Your task to perform on an android device: Open Google Chrome and open the bookmarks view Image 0: 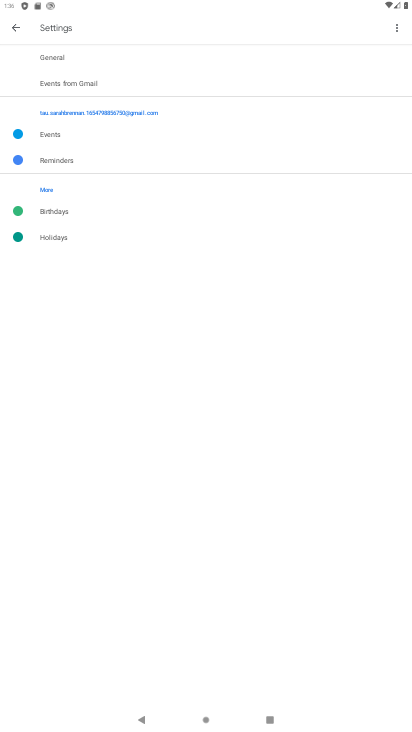
Step 0: press home button
Your task to perform on an android device: Open Google Chrome and open the bookmarks view Image 1: 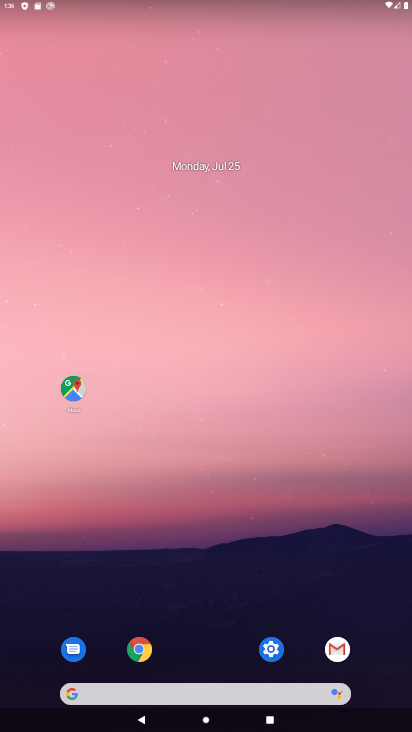
Step 1: click (137, 652)
Your task to perform on an android device: Open Google Chrome and open the bookmarks view Image 2: 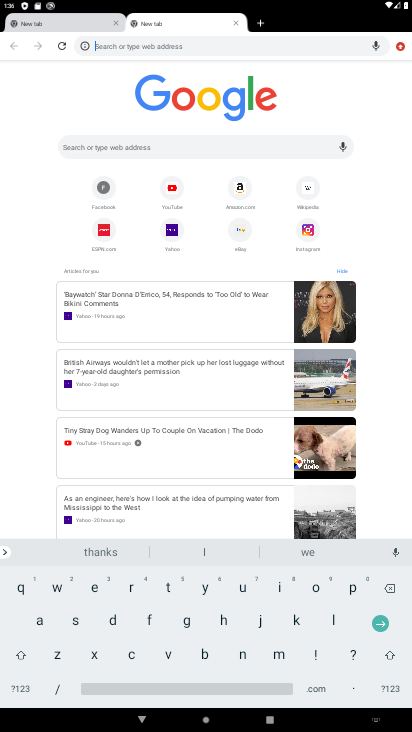
Step 2: click (400, 45)
Your task to perform on an android device: Open Google Chrome and open the bookmarks view Image 3: 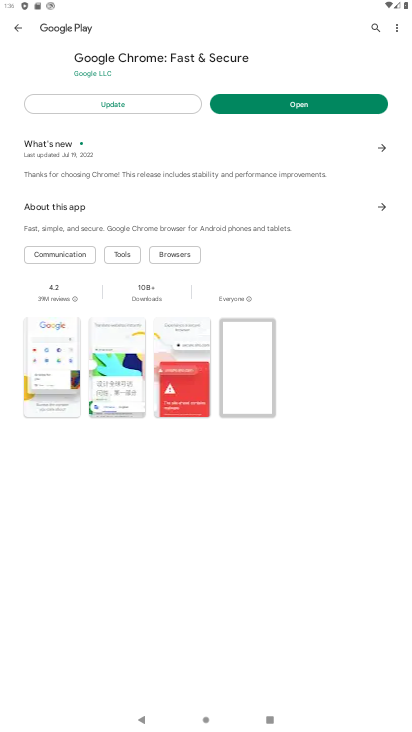
Step 3: press back button
Your task to perform on an android device: Open Google Chrome and open the bookmarks view Image 4: 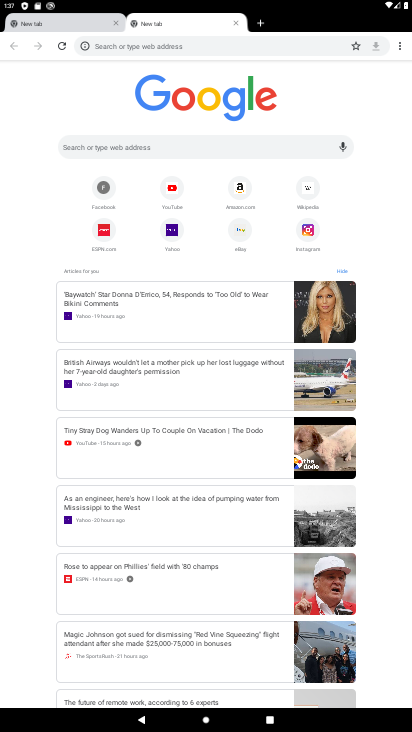
Step 4: press back button
Your task to perform on an android device: Open Google Chrome and open the bookmarks view Image 5: 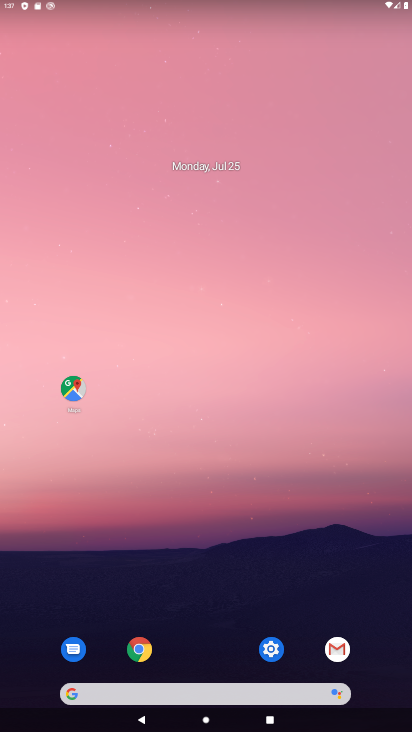
Step 5: click (131, 656)
Your task to perform on an android device: Open Google Chrome and open the bookmarks view Image 6: 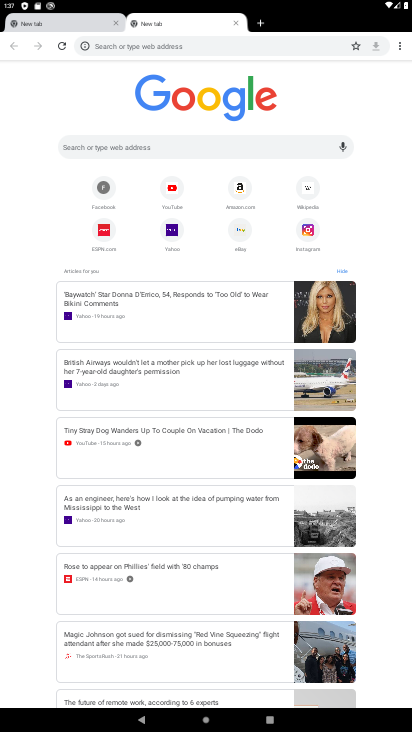
Step 6: click (399, 52)
Your task to perform on an android device: Open Google Chrome and open the bookmarks view Image 7: 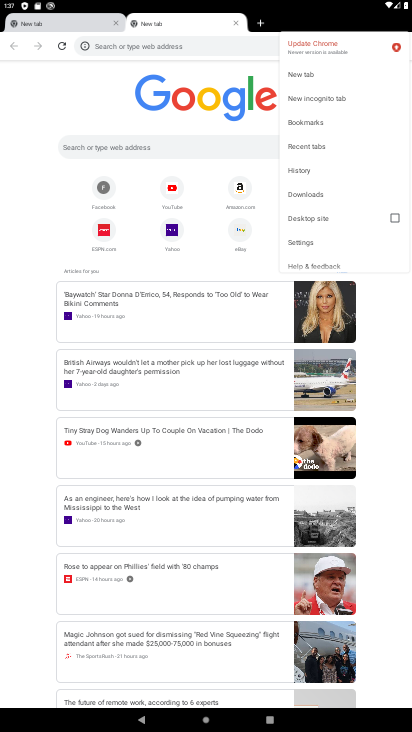
Step 7: click (310, 118)
Your task to perform on an android device: Open Google Chrome and open the bookmarks view Image 8: 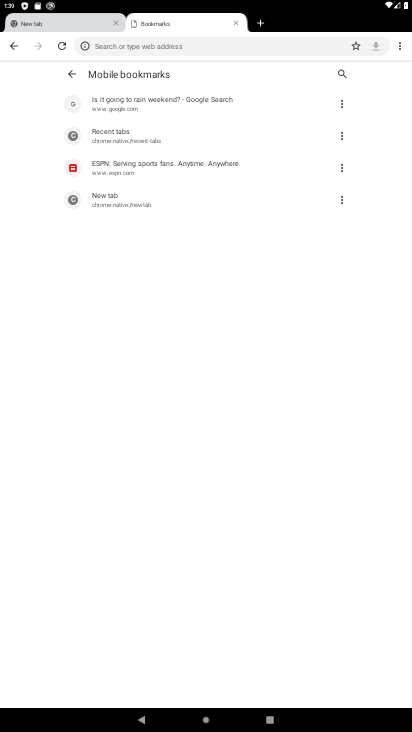
Step 8: task complete